Your task to perform on an android device: Do I have any events this weekend? Image 0: 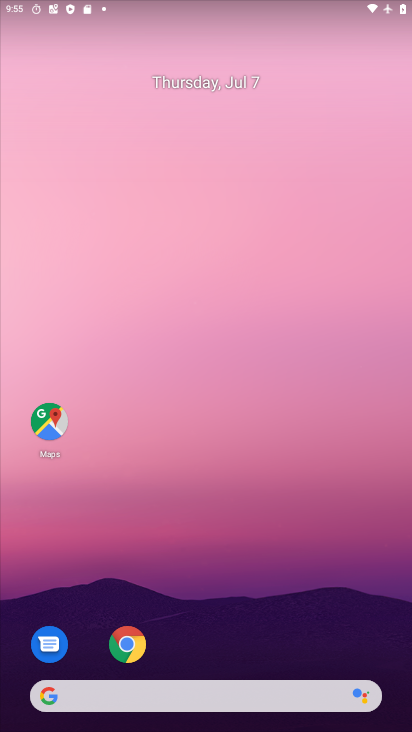
Step 0: drag from (278, 633) to (199, 23)
Your task to perform on an android device: Do I have any events this weekend? Image 1: 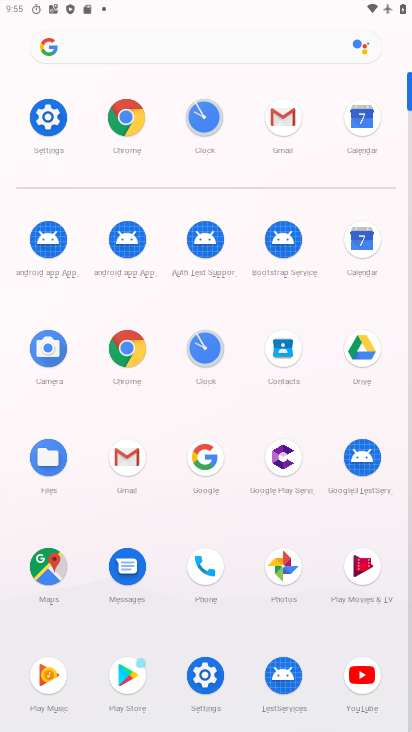
Step 1: click (372, 238)
Your task to perform on an android device: Do I have any events this weekend? Image 2: 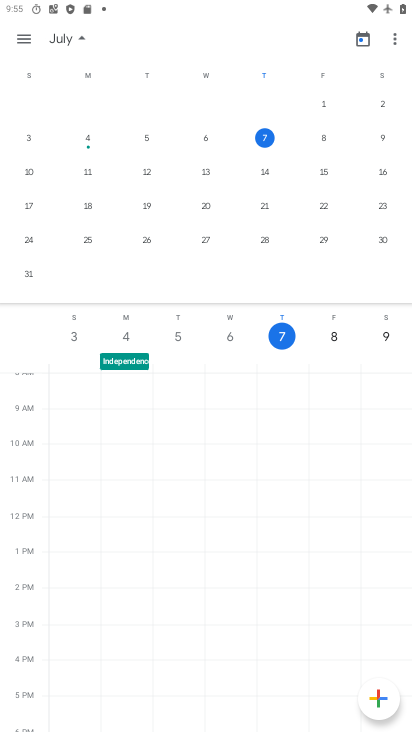
Step 2: task complete